Your task to perform on an android device: snooze an email in the gmail app Image 0: 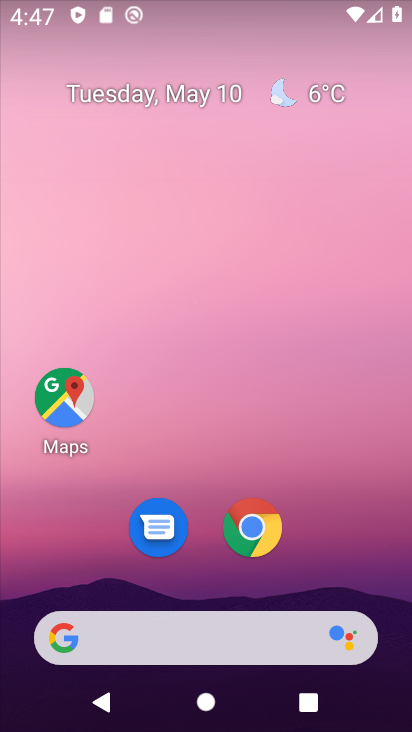
Step 0: drag from (340, 590) to (366, 10)
Your task to perform on an android device: snooze an email in the gmail app Image 1: 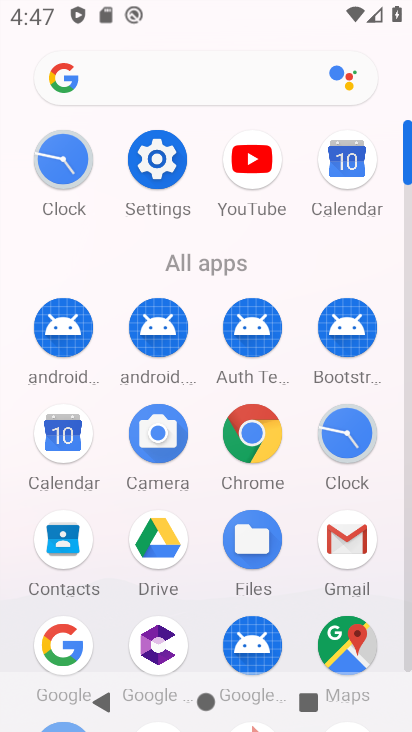
Step 1: click (348, 528)
Your task to perform on an android device: snooze an email in the gmail app Image 2: 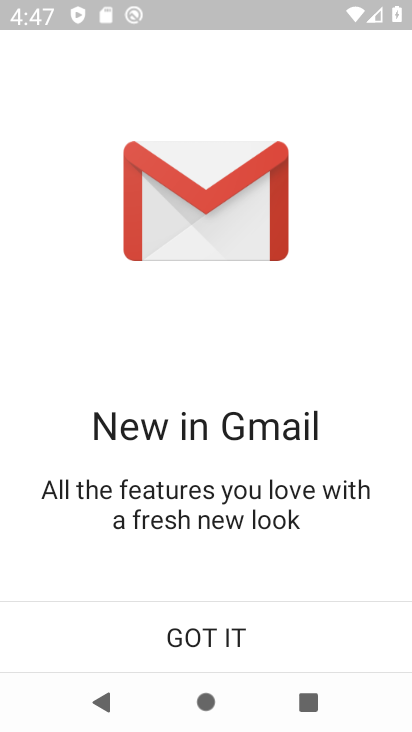
Step 2: click (216, 654)
Your task to perform on an android device: snooze an email in the gmail app Image 3: 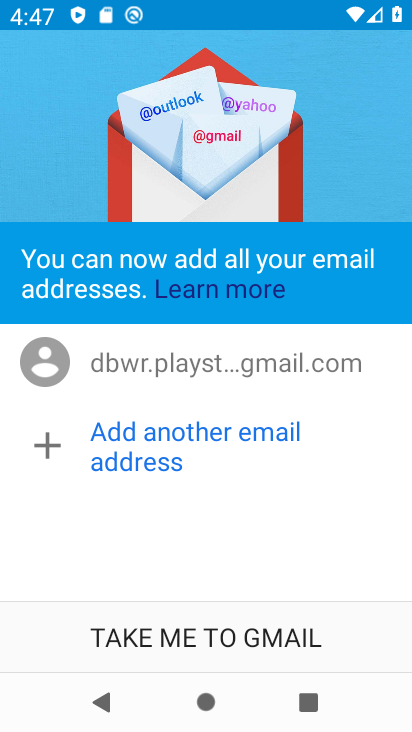
Step 3: click (253, 644)
Your task to perform on an android device: snooze an email in the gmail app Image 4: 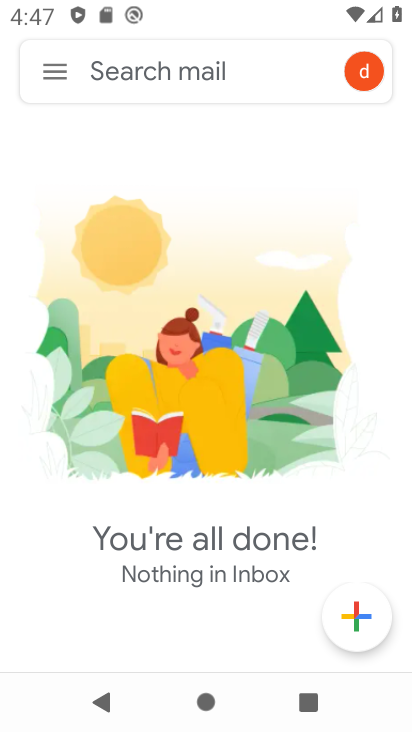
Step 4: click (56, 81)
Your task to perform on an android device: snooze an email in the gmail app Image 5: 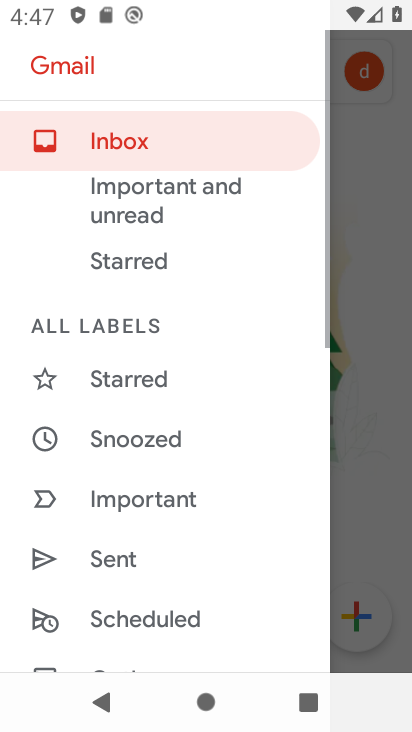
Step 5: drag from (166, 600) to (232, 123)
Your task to perform on an android device: snooze an email in the gmail app Image 6: 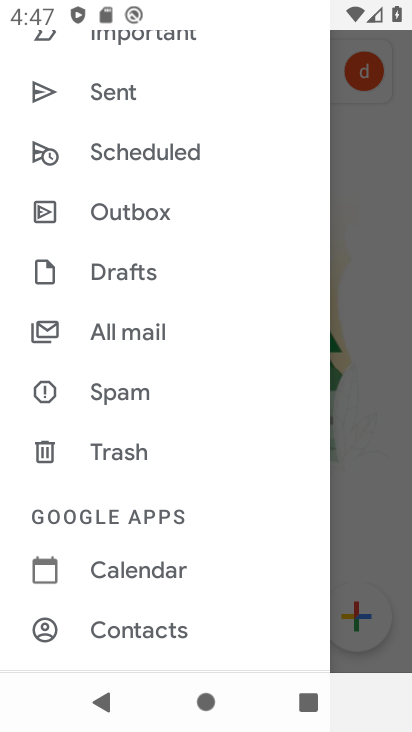
Step 6: click (121, 348)
Your task to perform on an android device: snooze an email in the gmail app Image 7: 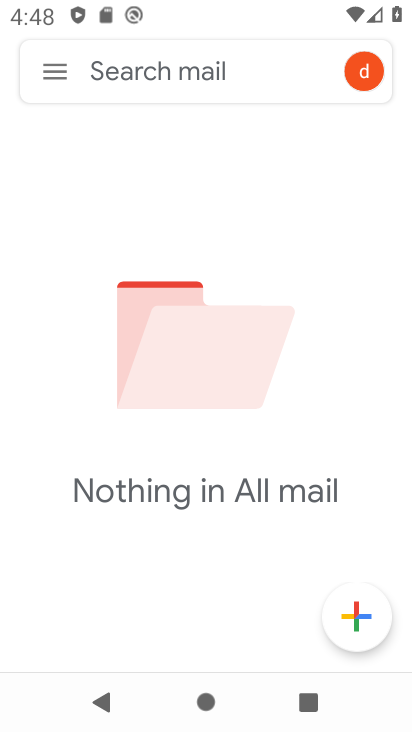
Step 7: task complete